Your task to perform on an android device: Open Google Chrome Image 0: 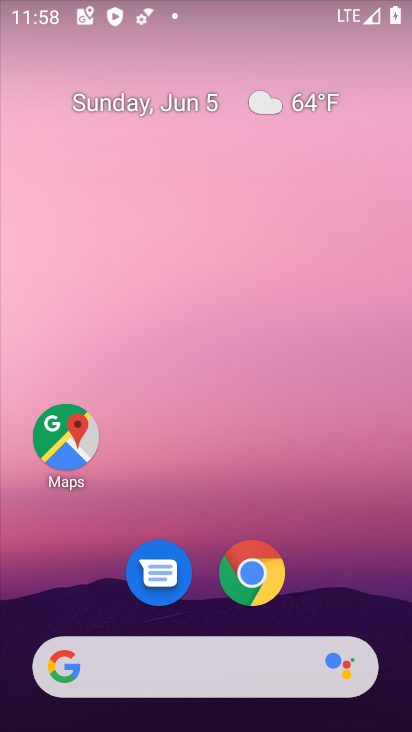
Step 0: click (267, 574)
Your task to perform on an android device: Open Google Chrome Image 1: 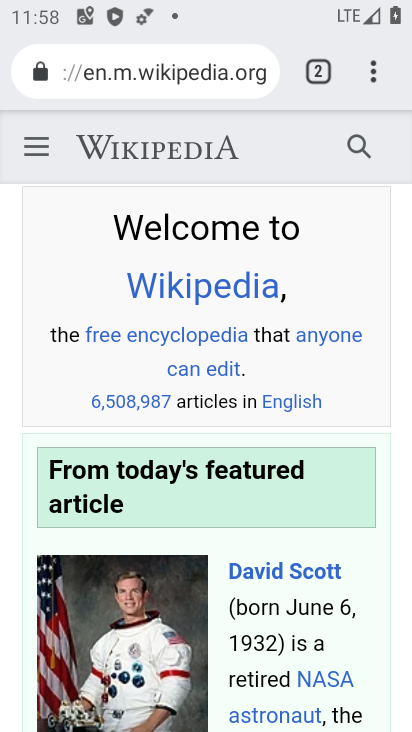
Step 1: click (324, 74)
Your task to perform on an android device: Open Google Chrome Image 2: 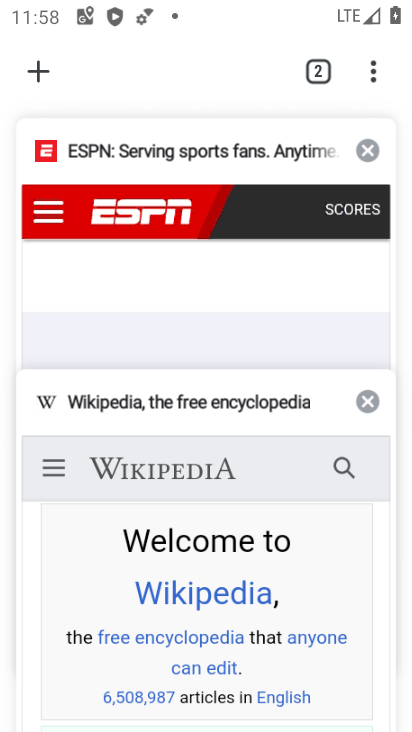
Step 2: click (317, 76)
Your task to perform on an android device: Open Google Chrome Image 3: 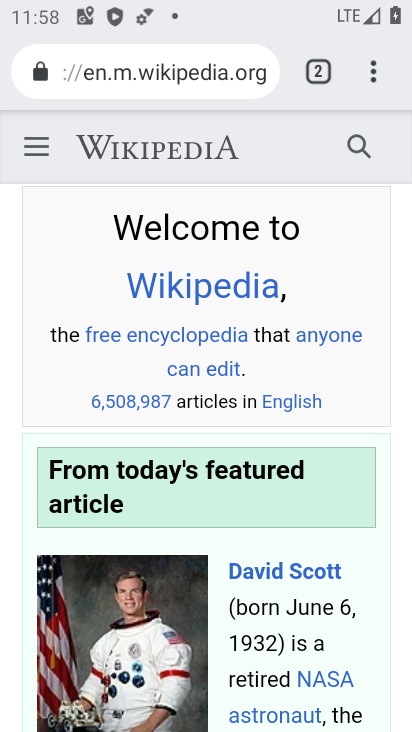
Step 3: click (314, 81)
Your task to perform on an android device: Open Google Chrome Image 4: 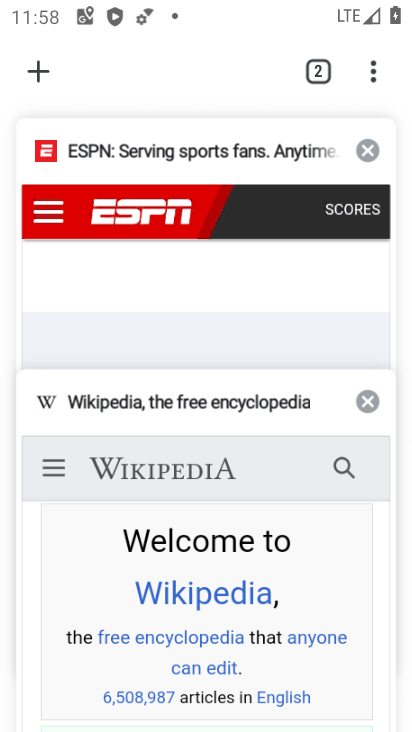
Step 4: click (369, 147)
Your task to perform on an android device: Open Google Chrome Image 5: 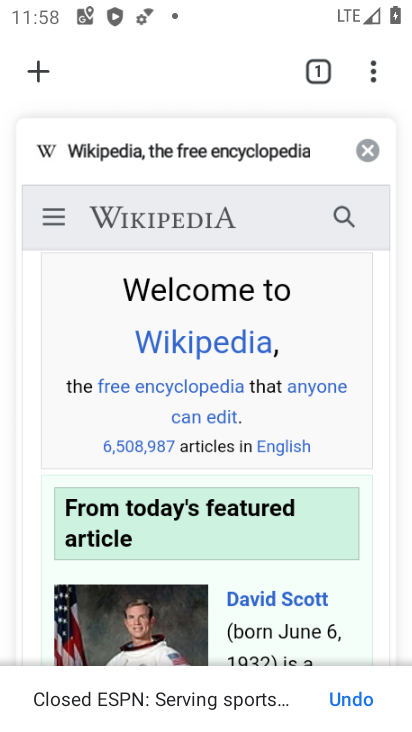
Step 5: click (366, 147)
Your task to perform on an android device: Open Google Chrome Image 6: 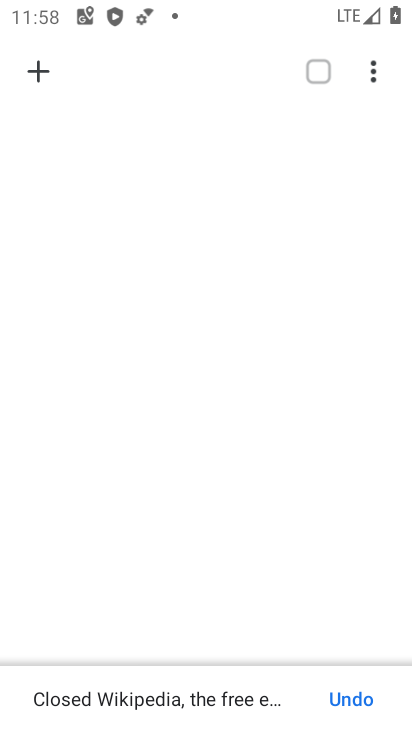
Step 6: click (28, 79)
Your task to perform on an android device: Open Google Chrome Image 7: 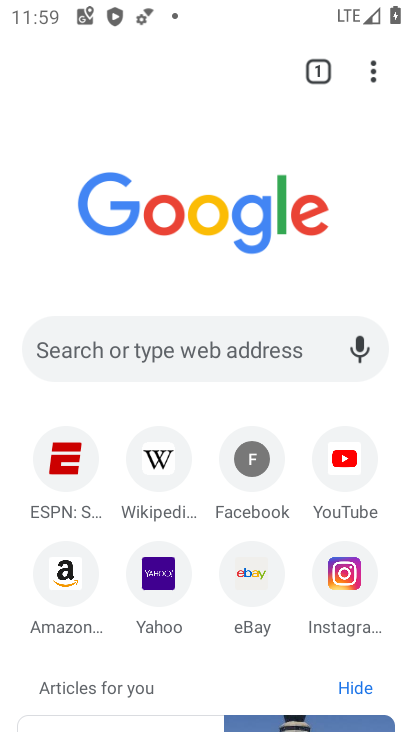
Step 7: task complete